Your task to perform on an android device: What is the capital of Canada? Image 0: 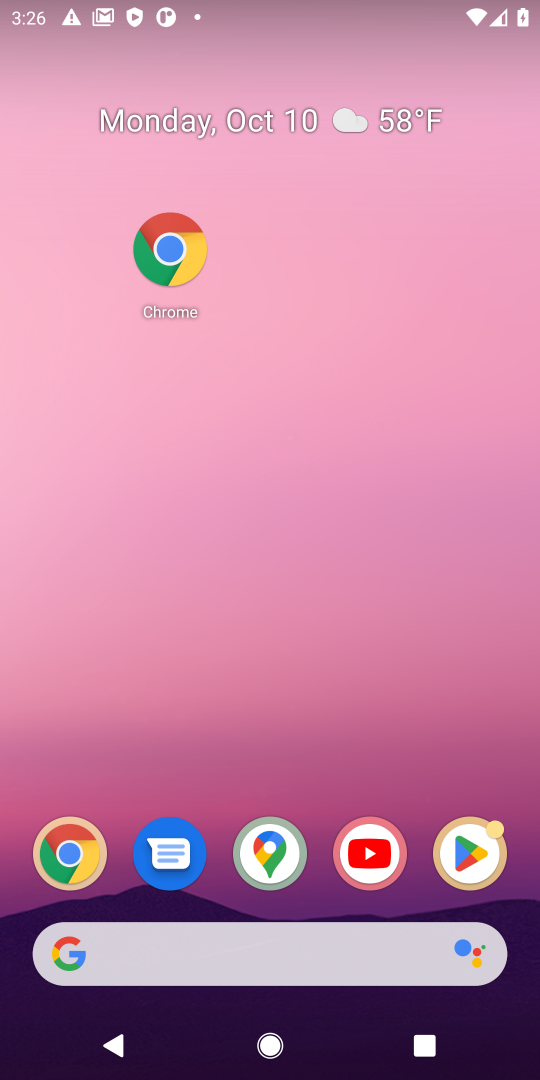
Step 0: click (81, 847)
Your task to perform on an android device: What is the capital of Canada? Image 1: 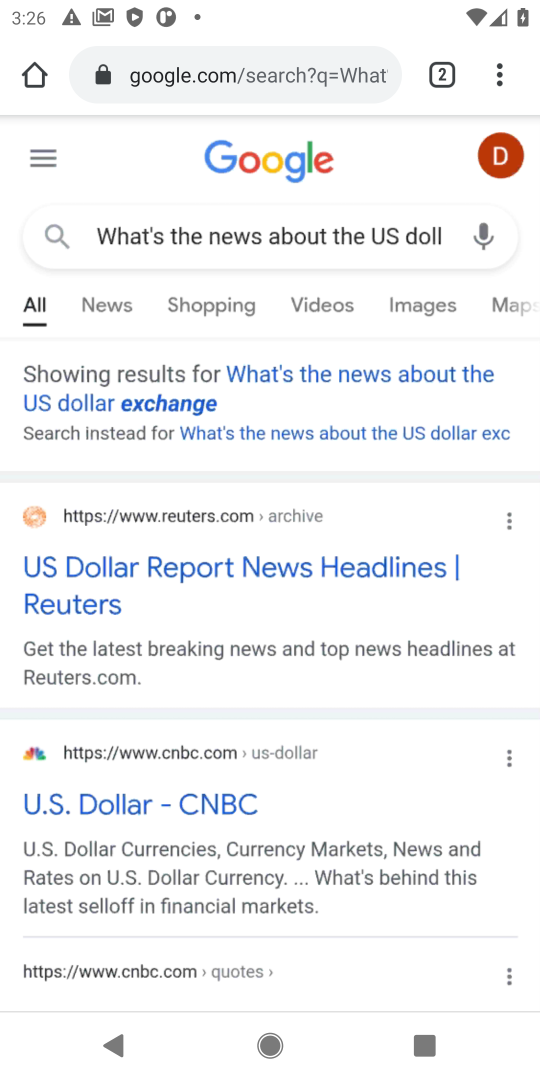
Step 1: click (240, 61)
Your task to perform on an android device: What is the capital of Canada? Image 2: 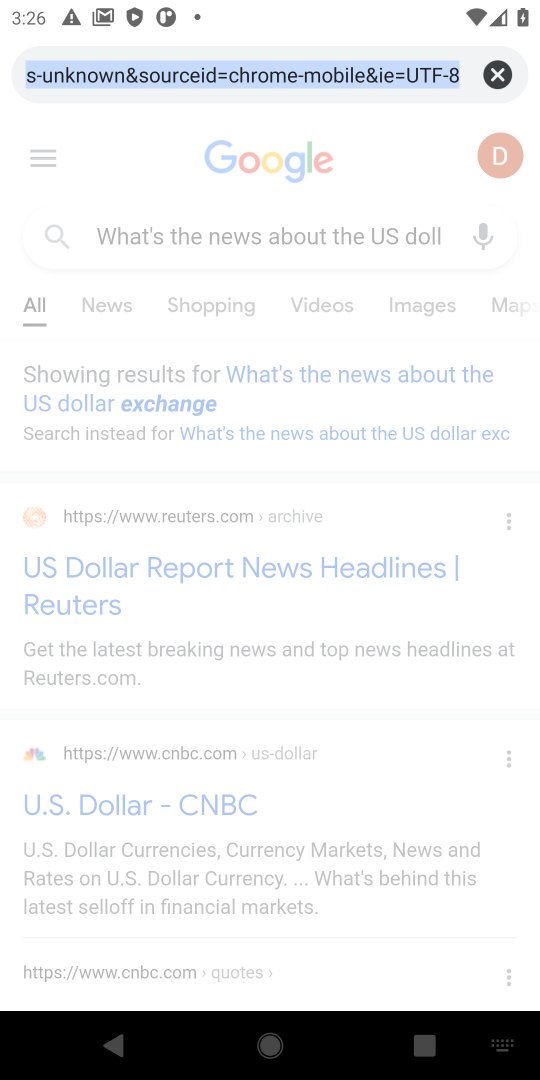
Step 2: type "What is the capital of Canada?"
Your task to perform on an android device: What is the capital of Canada? Image 3: 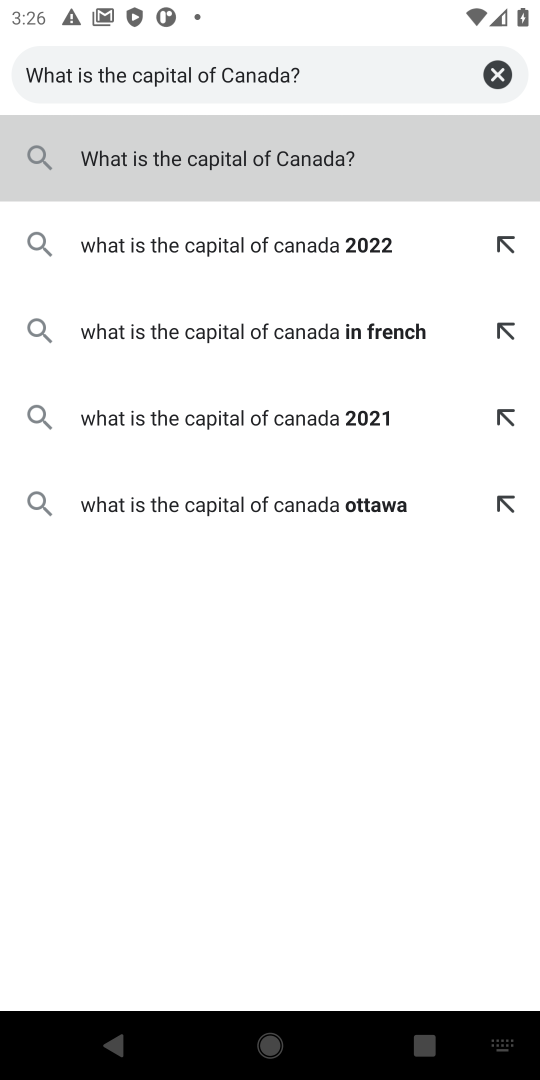
Step 3: click (293, 149)
Your task to perform on an android device: What is the capital of Canada? Image 4: 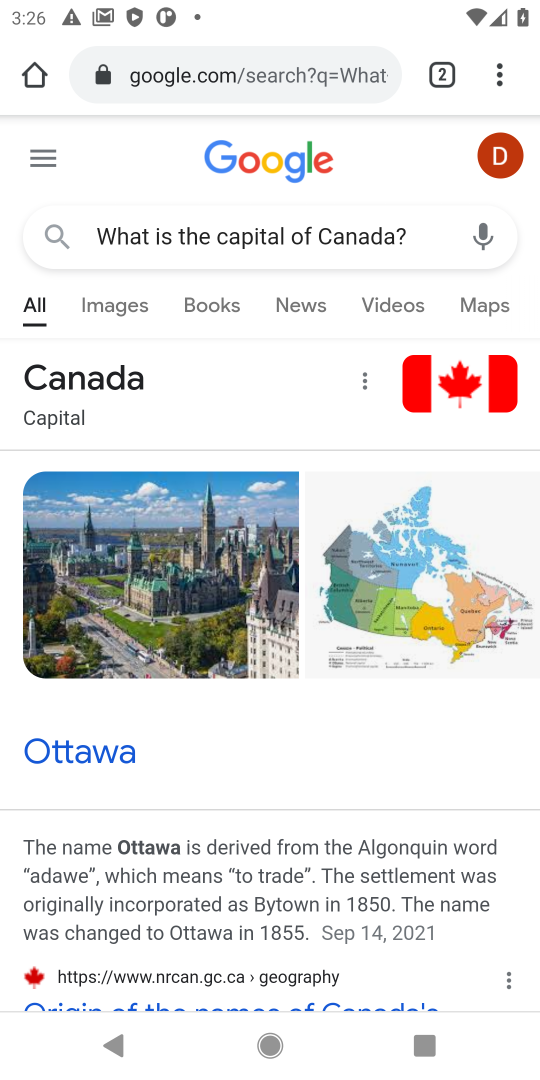
Step 4: task complete